Your task to perform on an android device: How much does a 2x4x8 board cost at Lowes? Image 0: 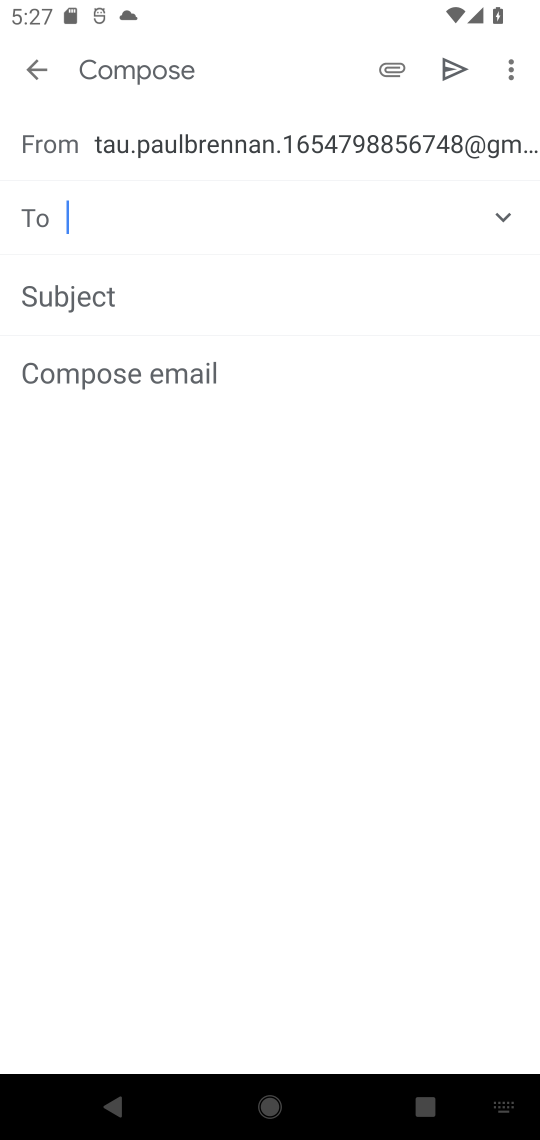
Step 0: press home button
Your task to perform on an android device: How much does a 2x4x8 board cost at Lowes? Image 1: 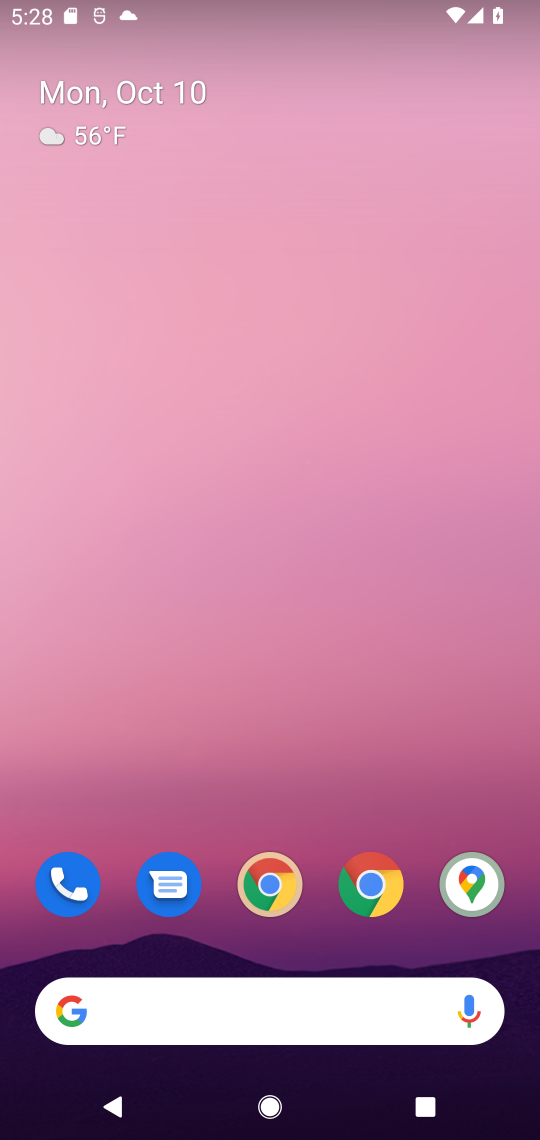
Step 1: click (357, 891)
Your task to perform on an android device: How much does a 2x4x8 board cost at Lowes? Image 2: 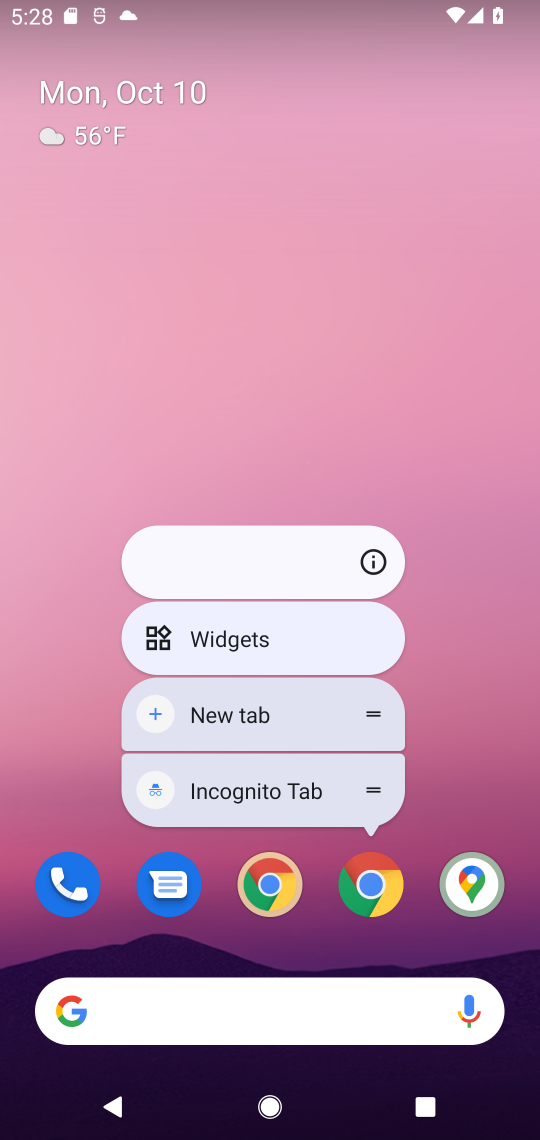
Step 2: click (367, 900)
Your task to perform on an android device: How much does a 2x4x8 board cost at Lowes? Image 3: 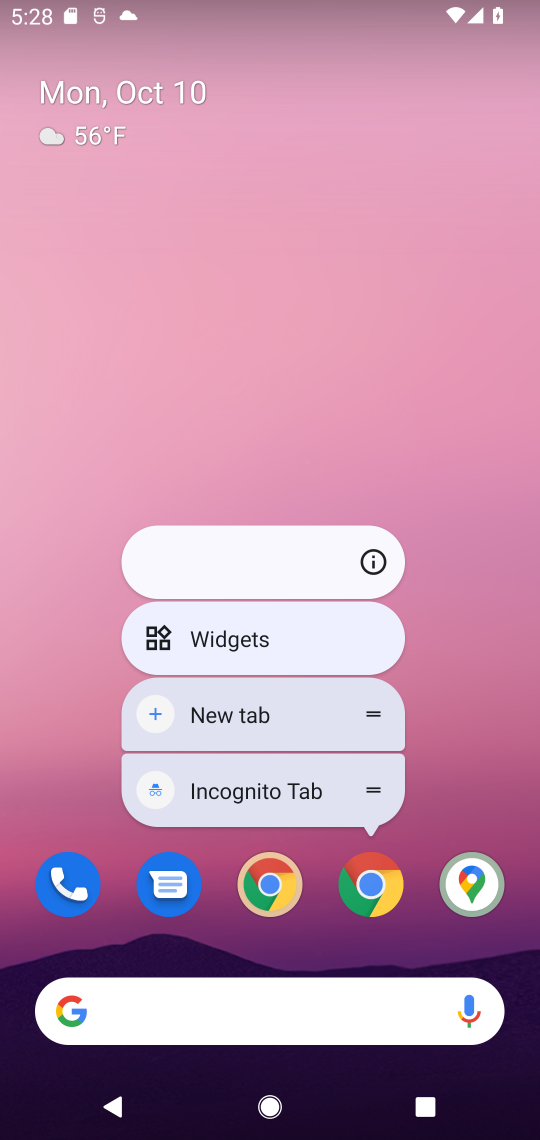
Step 3: click (382, 883)
Your task to perform on an android device: How much does a 2x4x8 board cost at Lowes? Image 4: 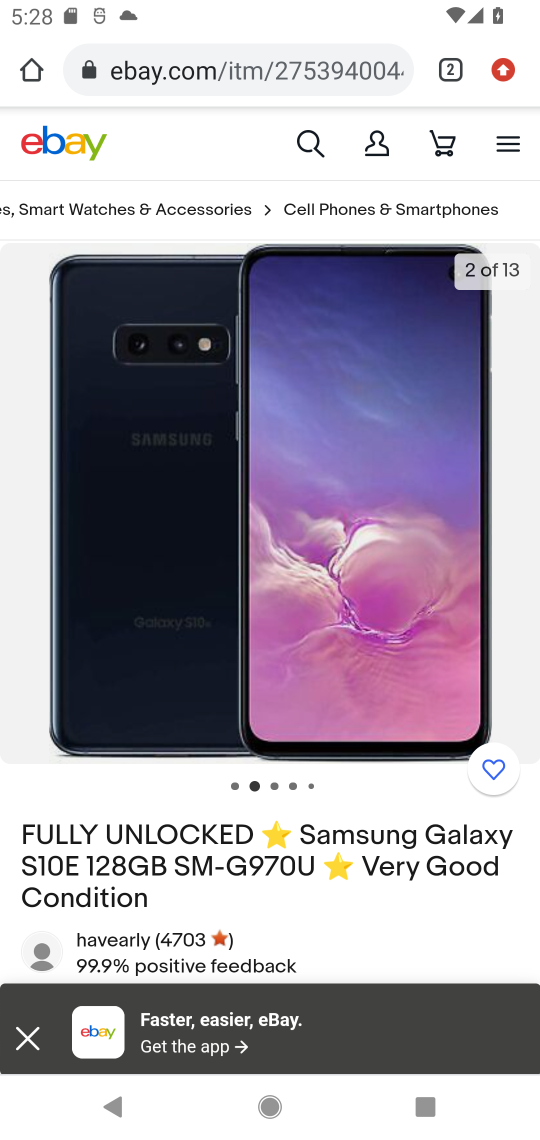
Step 4: click (197, 83)
Your task to perform on an android device: How much does a 2x4x8 board cost at Lowes? Image 5: 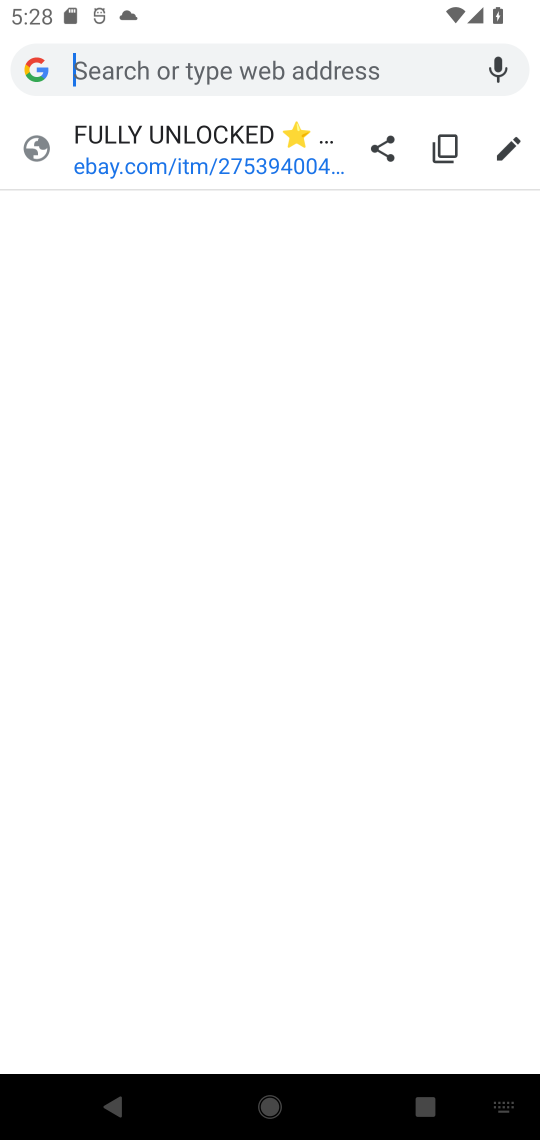
Step 5: type "How much does a 2x4x8 board cost at Lowes?"
Your task to perform on an android device: How much does a 2x4x8 board cost at Lowes? Image 6: 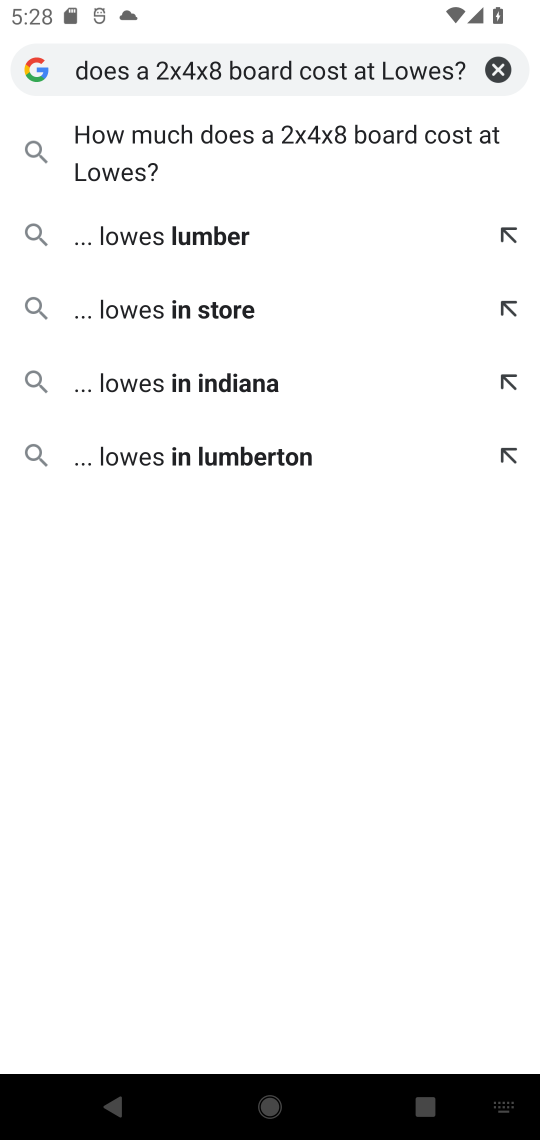
Step 6: click (272, 150)
Your task to perform on an android device: How much does a 2x4x8 board cost at Lowes? Image 7: 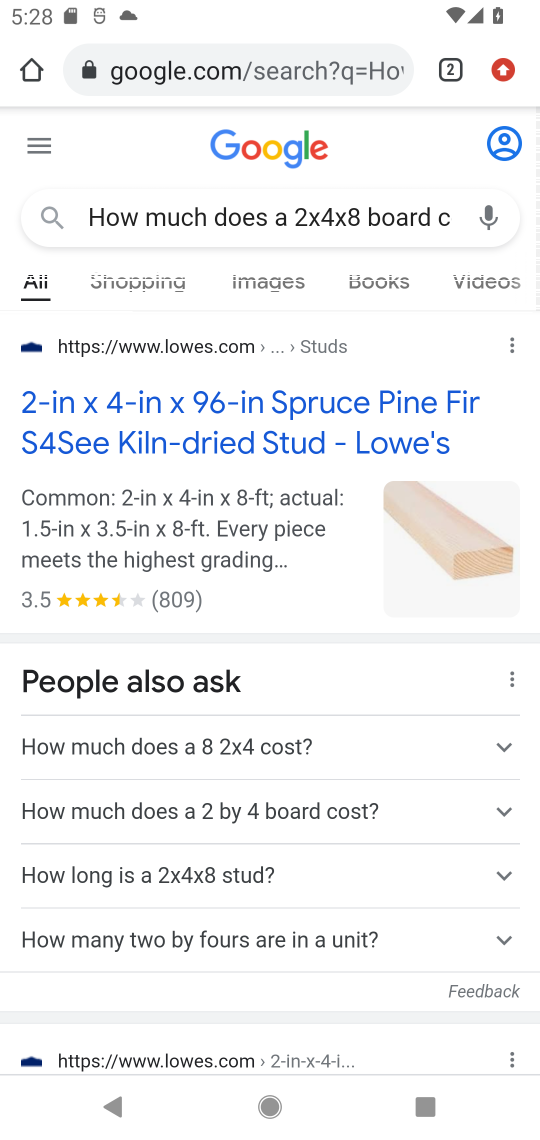
Step 7: click (248, 436)
Your task to perform on an android device: How much does a 2x4x8 board cost at Lowes? Image 8: 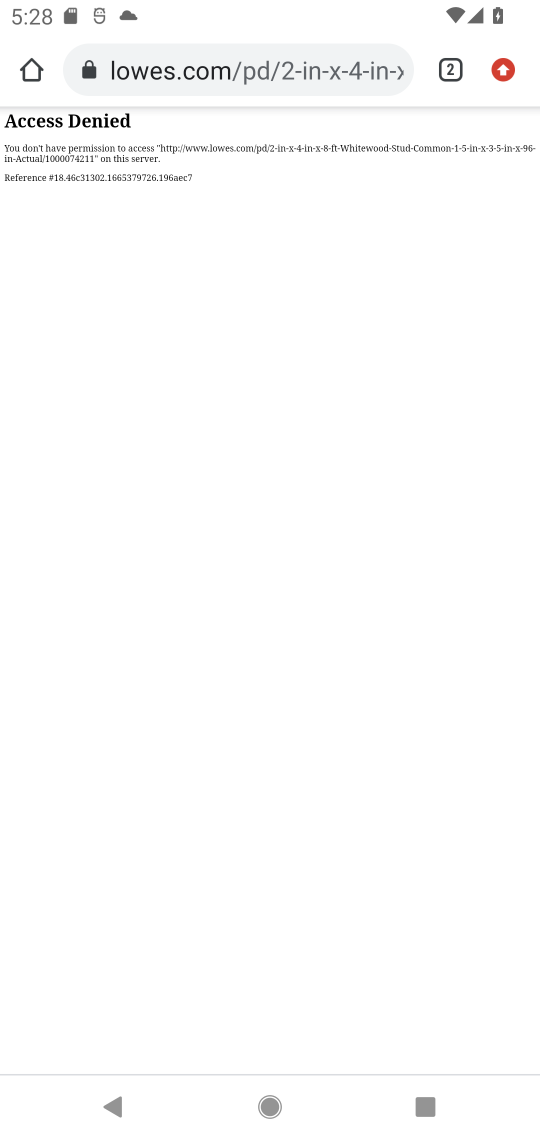
Step 8: press back button
Your task to perform on an android device: How much does a 2x4x8 board cost at Lowes? Image 9: 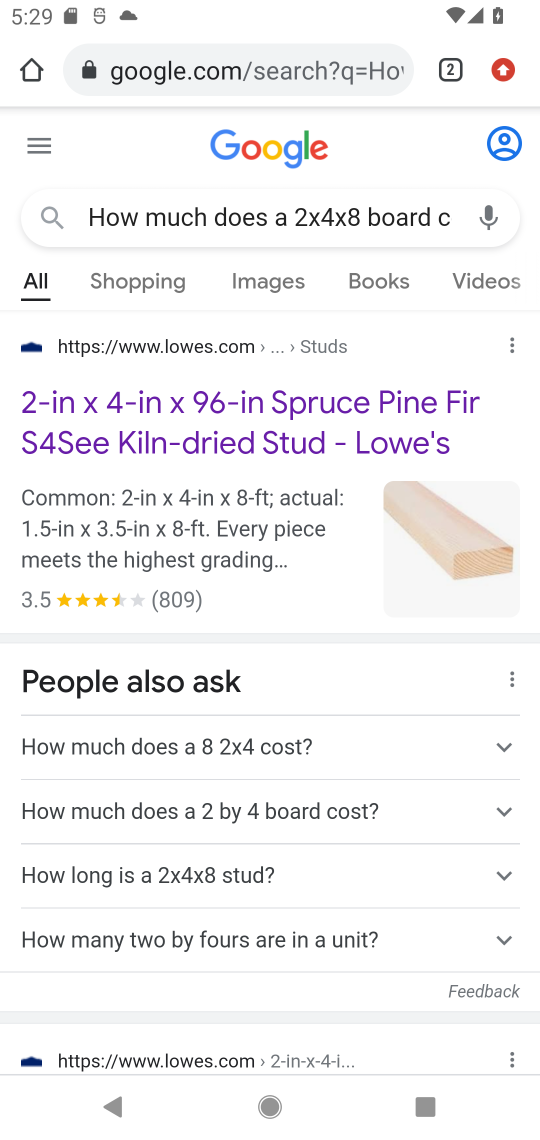
Step 9: drag from (254, 834) to (261, 661)
Your task to perform on an android device: How much does a 2x4x8 board cost at Lowes? Image 10: 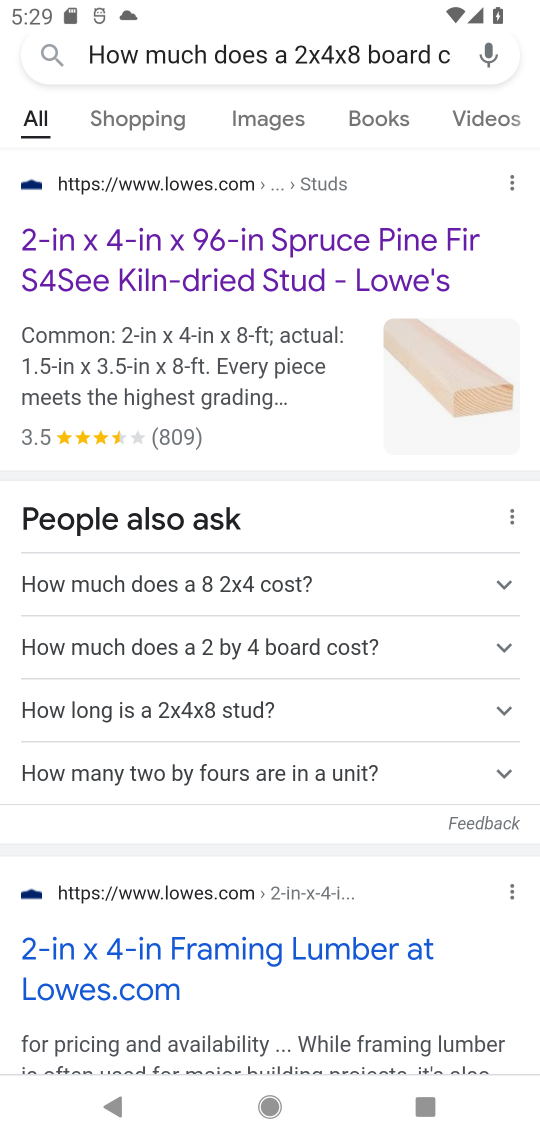
Step 10: click (298, 263)
Your task to perform on an android device: How much does a 2x4x8 board cost at Lowes? Image 11: 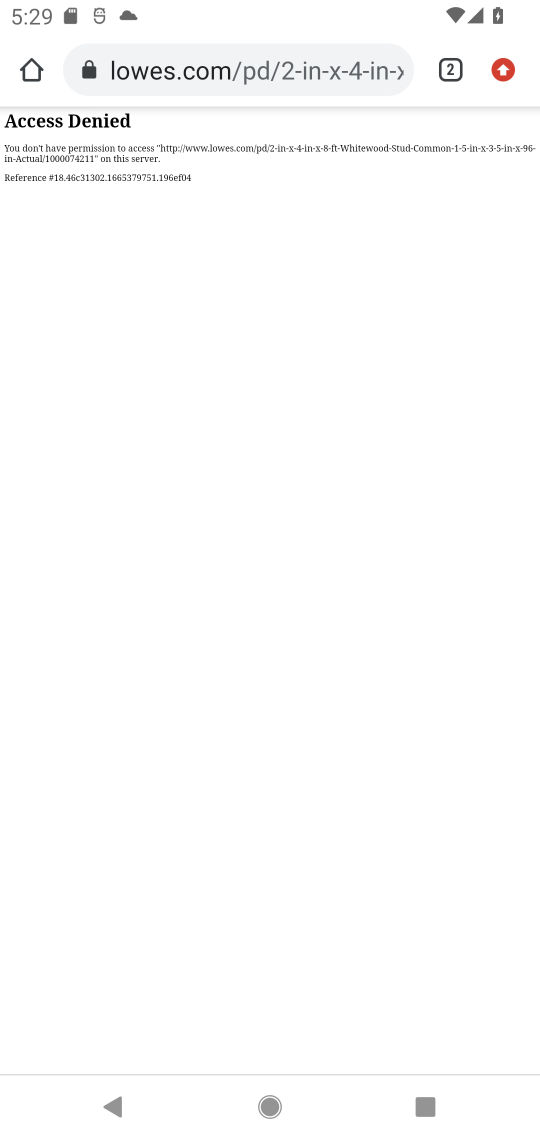
Step 11: press back button
Your task to perform on an android device: How much does a 2x4x8 board cost at Lowes? Image 12: 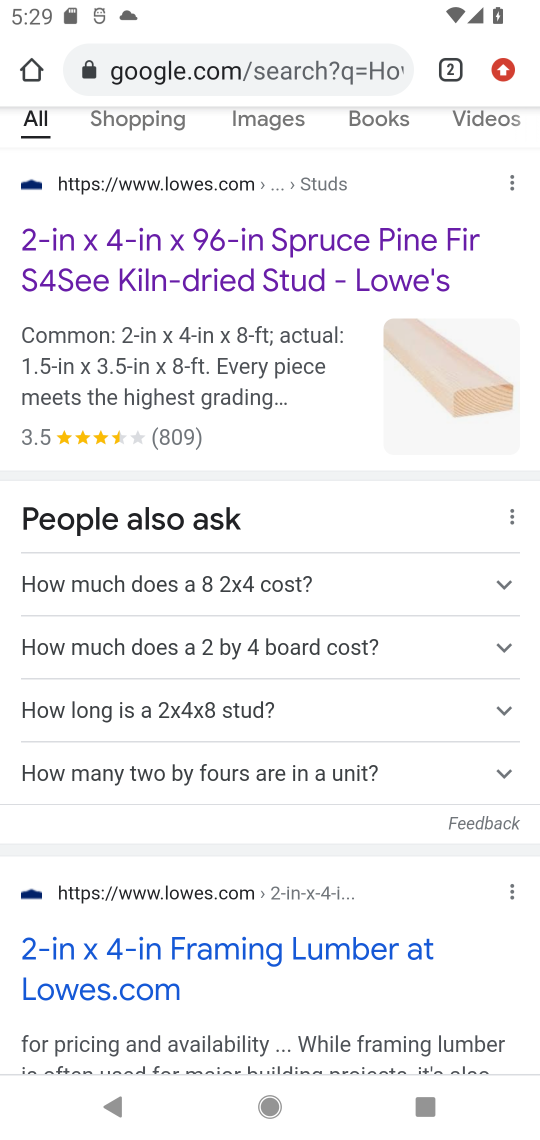
Step 12: drag from (183, 817) to (202, 389)
Your task to perform on an android device: How much does a 2x4x8 board cost at Lowes? Image 13: 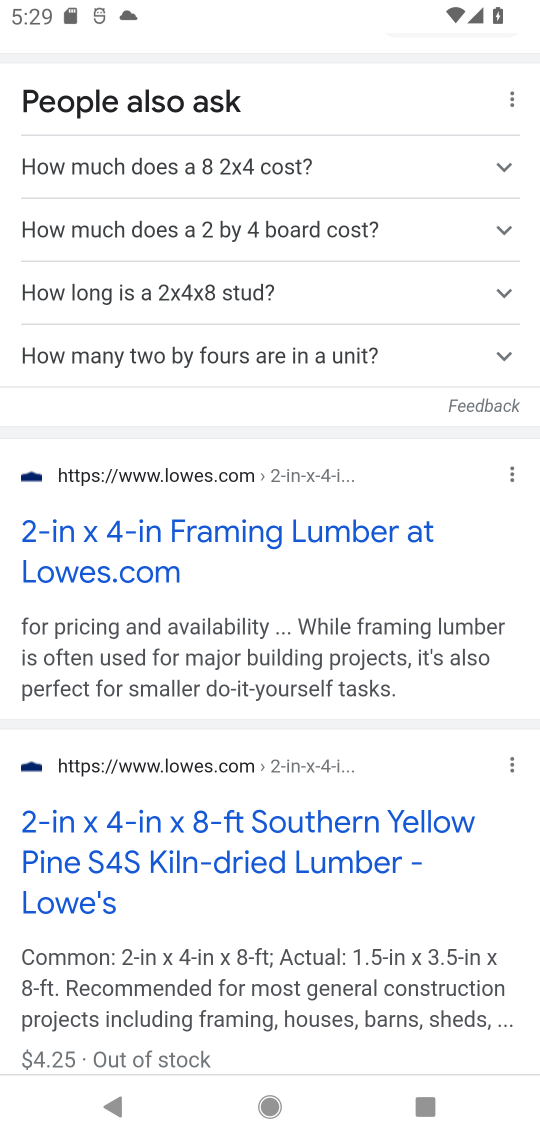
Step 13: click (96, 549)
Your task to perform on an android device: How much does a 2x4x8 board cost at Lowes? Image 14: 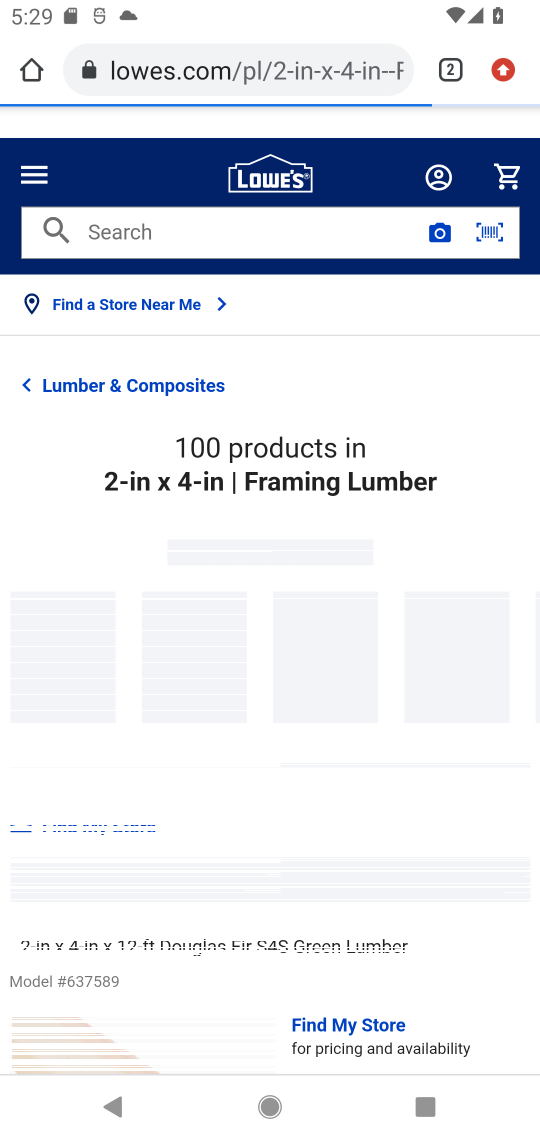
Step 14: task complete